Your task to perform on an android device: What's on the menu at Five Guys? Image 0: 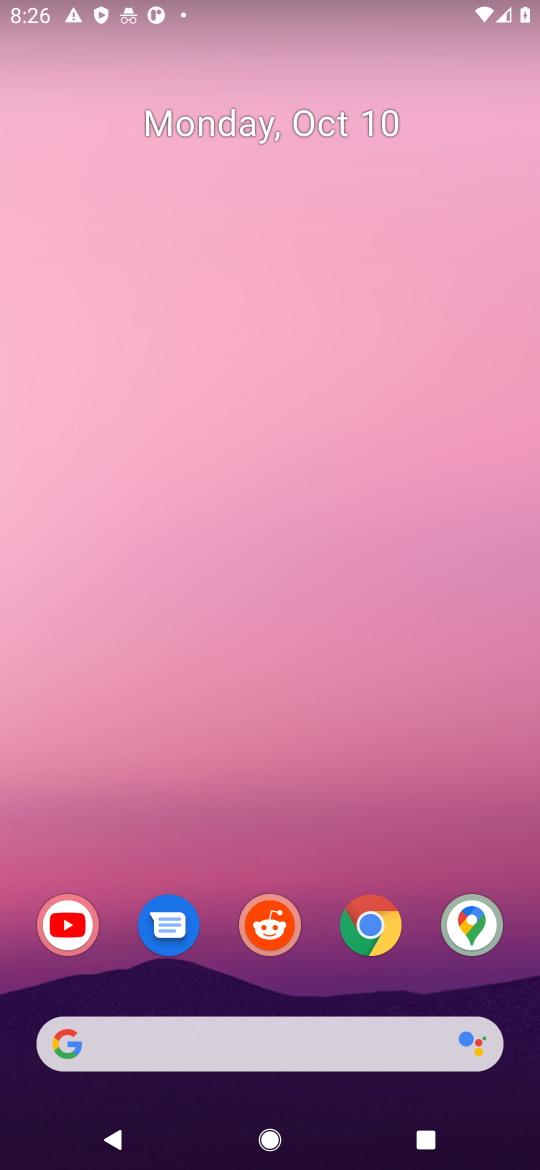
Step 0: drag from (322, 979) to (533, 105)
Your task to perform on an android device: What's on the menu at Five Guys? Image 1: 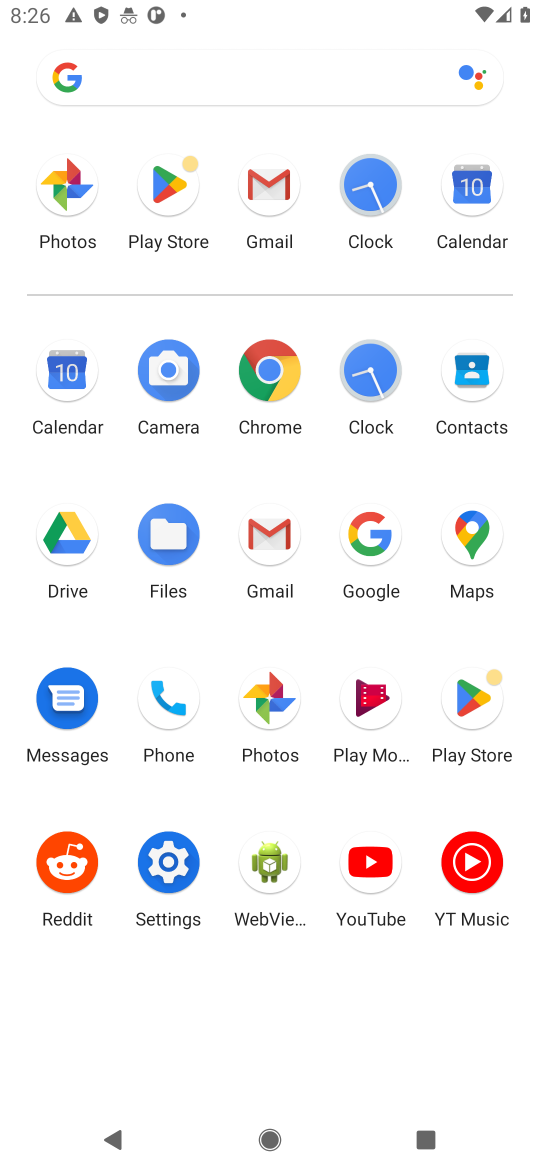
Step 1: click (270, 376)
Your task to perform on an android device: What's on the menu at Five Guys? Image 2: 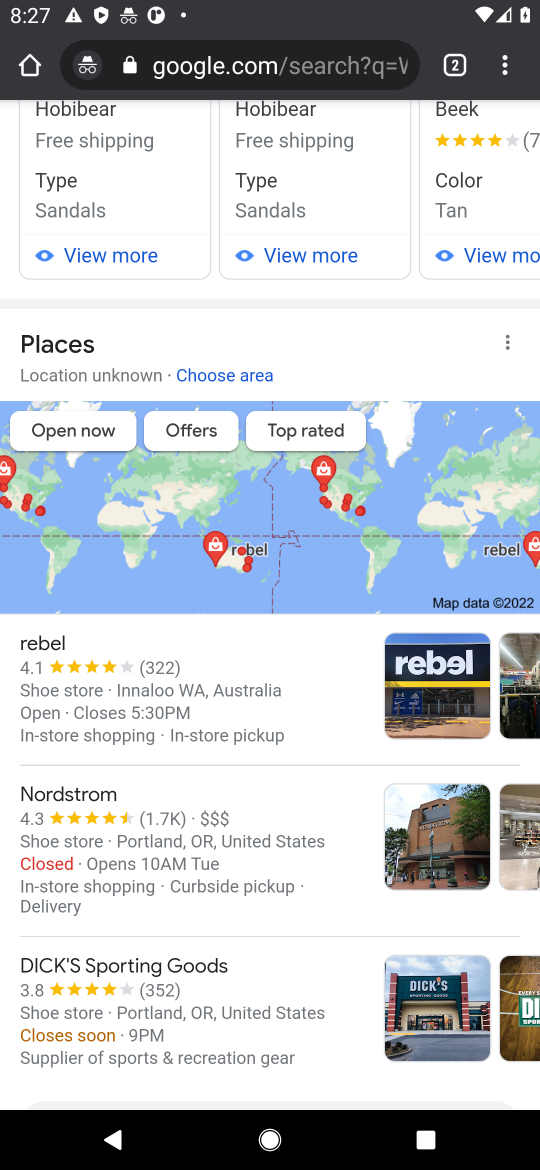
Step 2: click (313, 68)
Your task to perform on an android device: What's on the menu at Five Guys? Image 3: 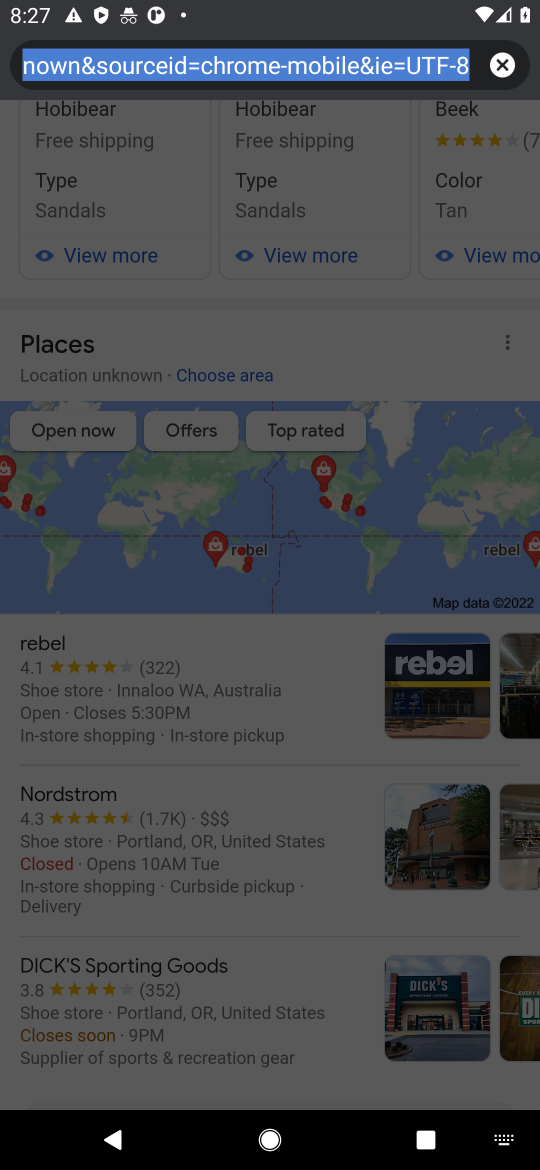
Step 3: type "Five Guys menu"
Your task to perform on an android device: What's on the menu at Five Guys? Image 4: 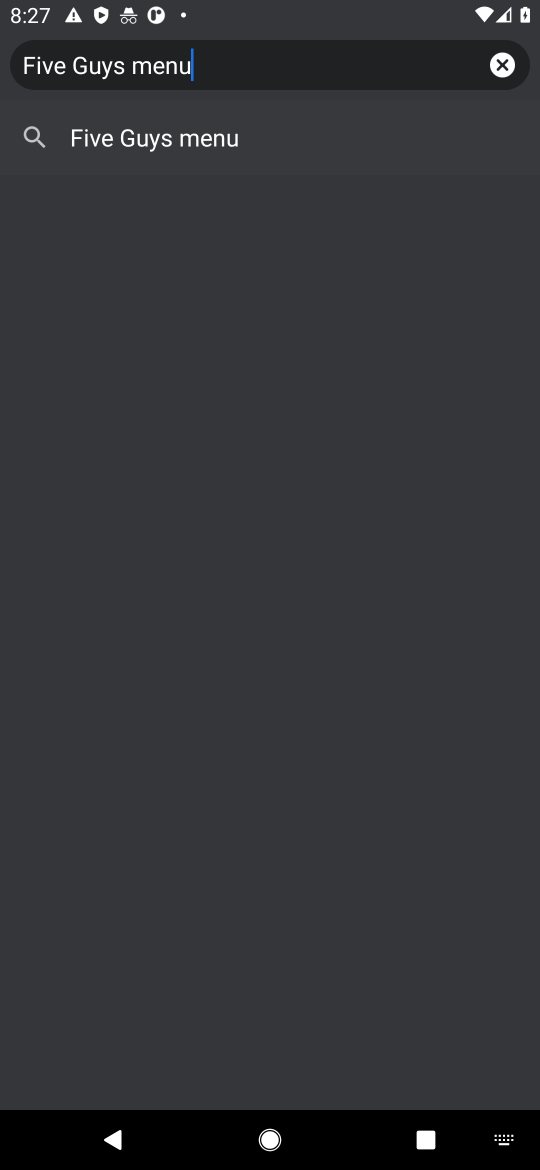
Step 4: press enter
Your task to perform on an android device: What's on the menu at Five Guys? Image 5: 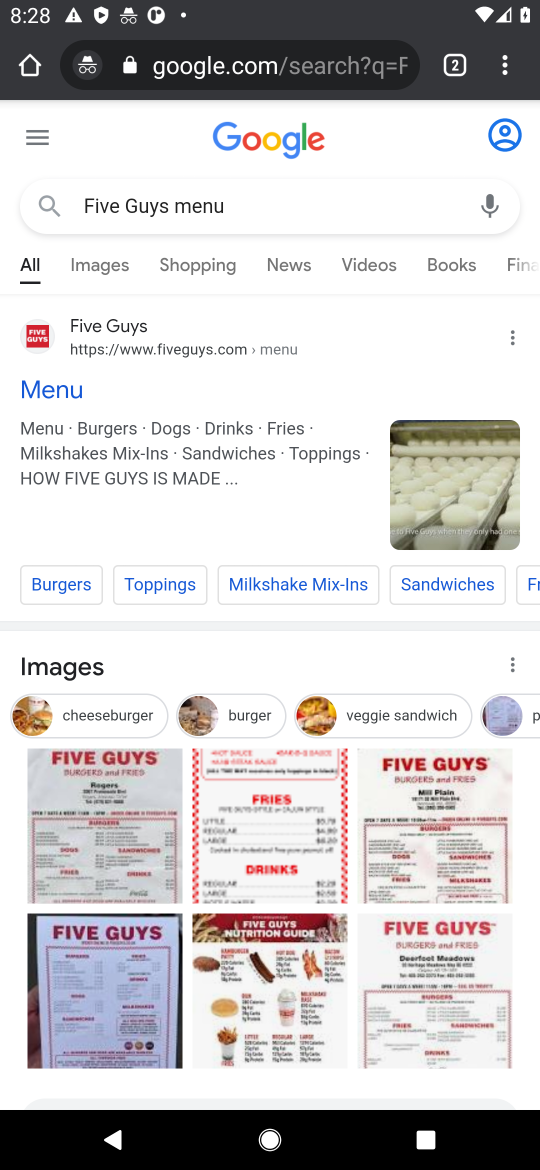
Step 5: click (29, 391)
Your task to perform on an android device: What's on the menu at Five Guys? Image 6: 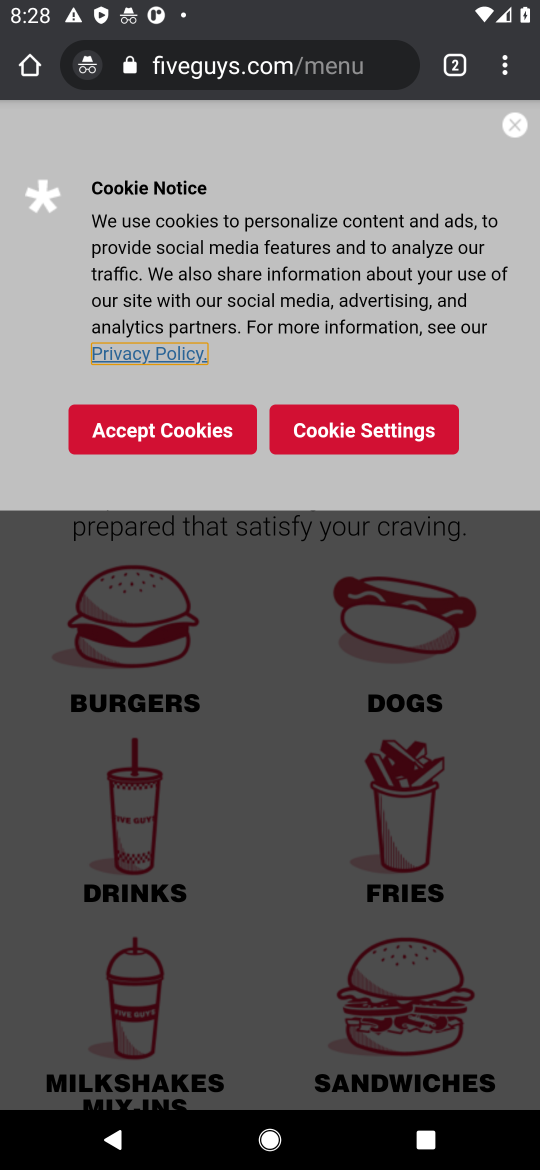
Step 6: click (520, 124)
Your task to perform on an android device: What's on the menu at Five Guys? Image 7: 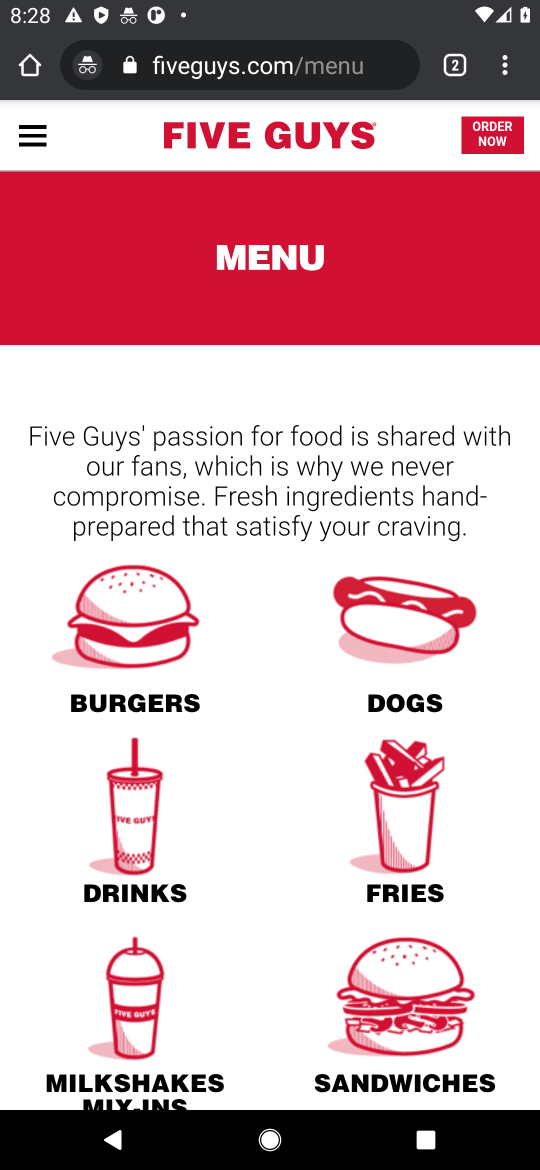
Step 7: task complete